Your task to perform on an android device: change the clock display to digital Image 0: 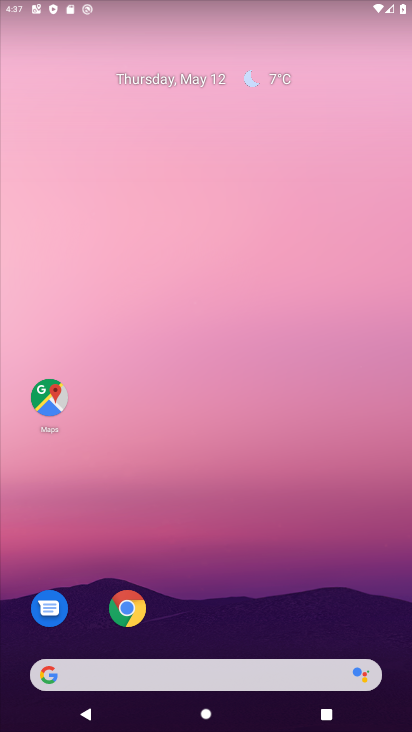
Step 0: drag from (202, 643) to (381, 129)
Your task to perform on an android device: change the clock display to digital Image 1: 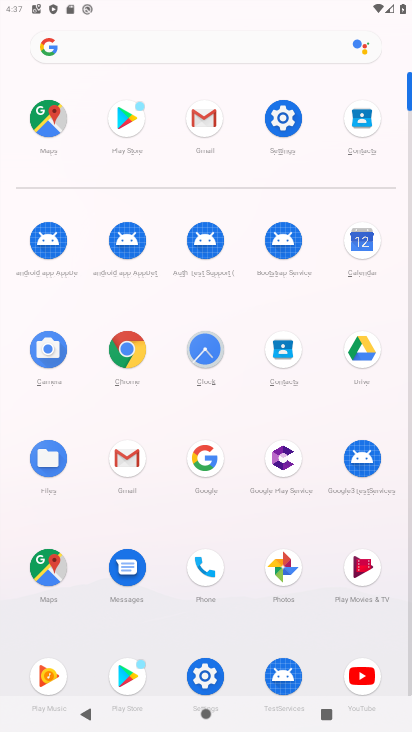
Step 1: click (195, 352)
Your task to perform on an android device: change the clock display to digital Image 2: 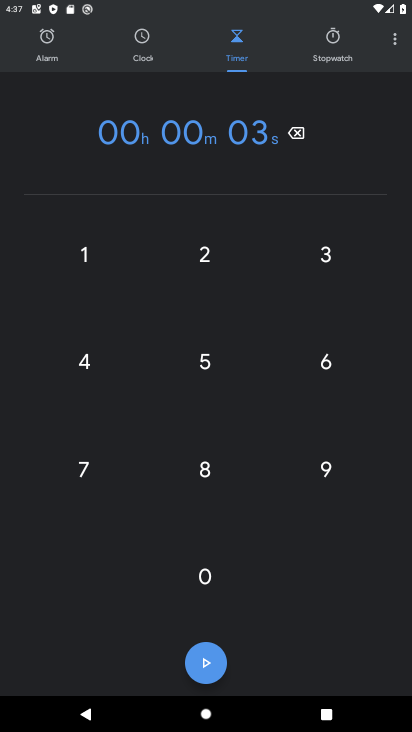
Step 2: click (383, 42)
Your task to perform on an android device: change the clock display to digital Image 3: 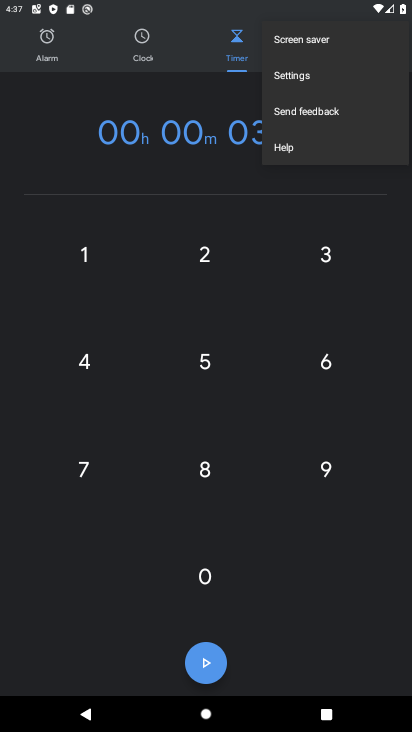
Step 3: click (351, 69)
Your task to perform on an android device: change the clock display to digital Image 4: 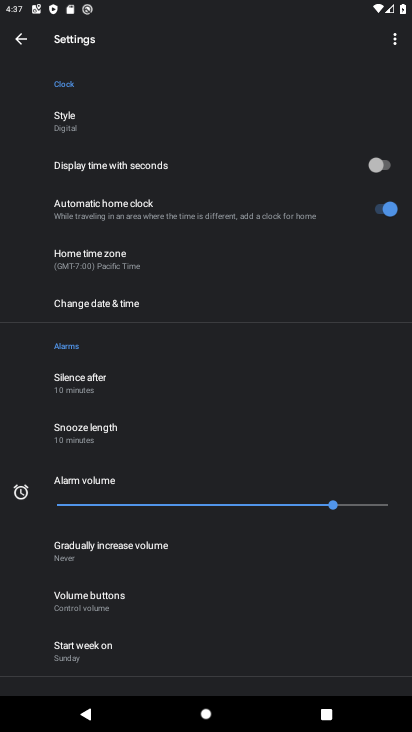
Step 4: task complete